Your task to perform on an android device: Go to ESPN.com Image 0: 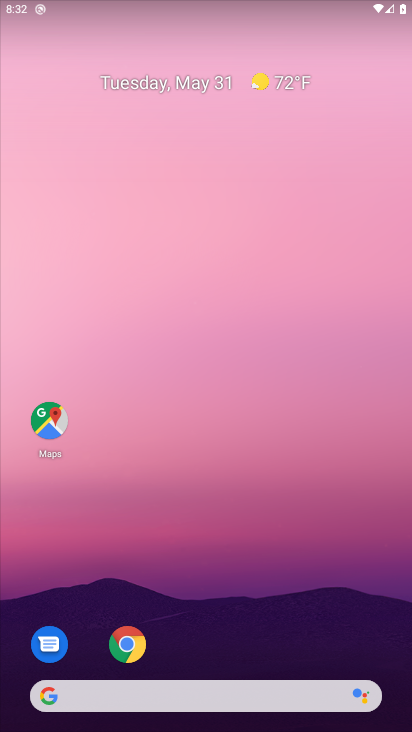
Step 0: press home button
Your task to perform on an android device: Go to ESPN.com Image 1: 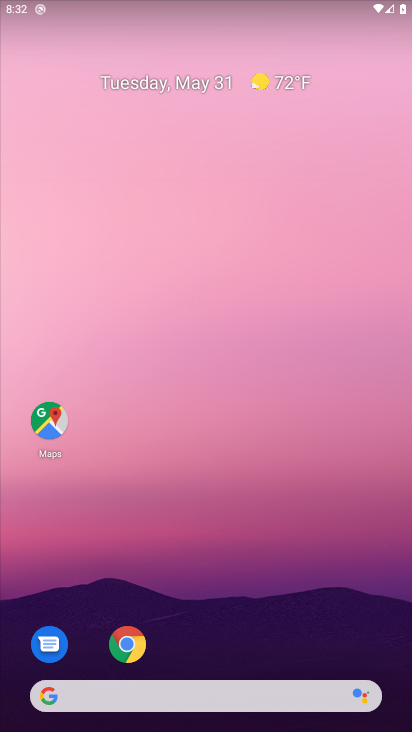
Step 1: click (123, 636)
Your task to perform on an android device: Go to ESPN.com Image 2: 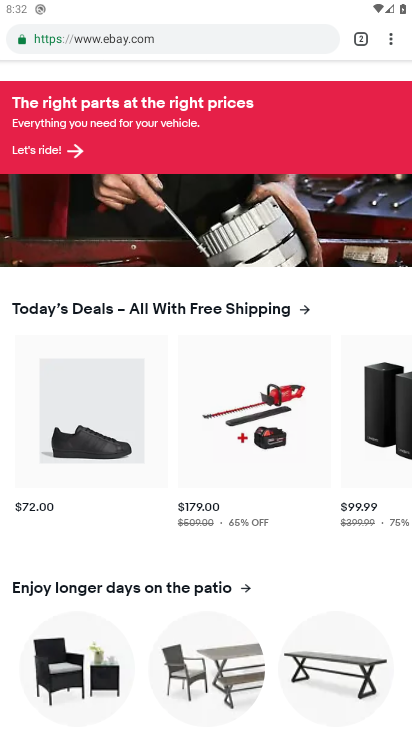
Step 2: click (357, 34)
Your task to perform on an android device: Go to ESPN.com Image 3: 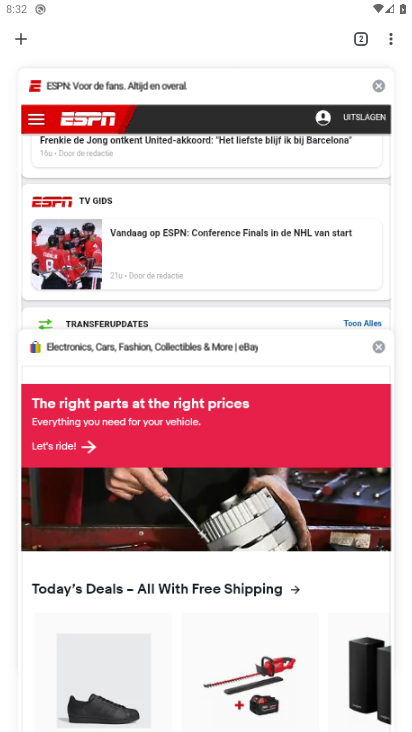
Step 3: click (376, 83)
Your task to perform on an android device: Go to ESPN.com Image 4: 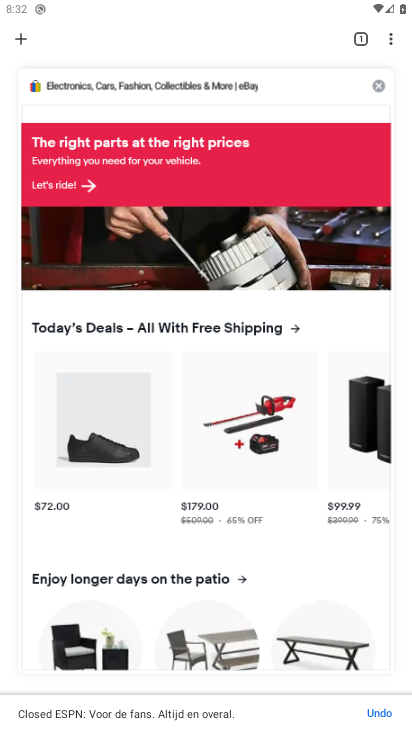
Step 4: click (379, 81)
Your task to perform on an android device: Go to ESPN.com Image 5: 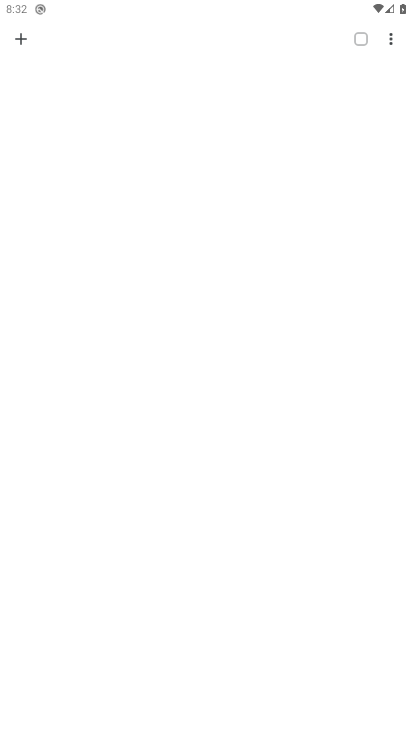
Step 5: click (25, 33)
Your task to perform on an android device: Go to ESPN.com Image 6: 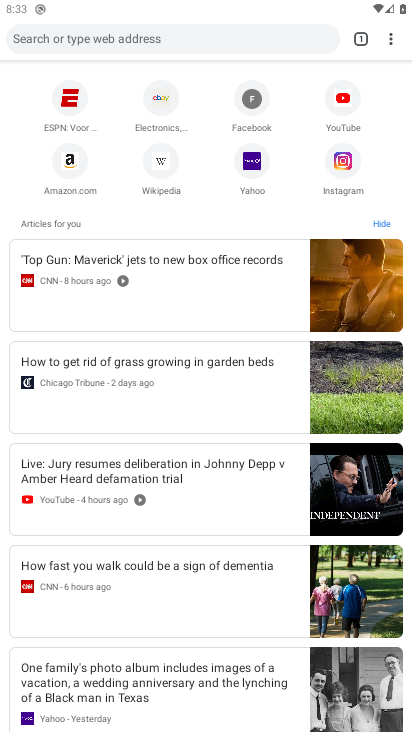
Step 6: click (67, 98)
Your task to perform on an android device: Go to ESPN.com Image 7: 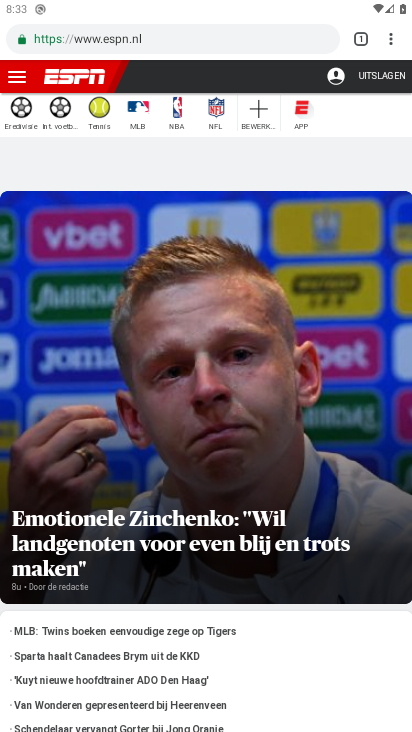
Step 7: task complete